Your task to perform on an android device: toggle wifi Image 0: 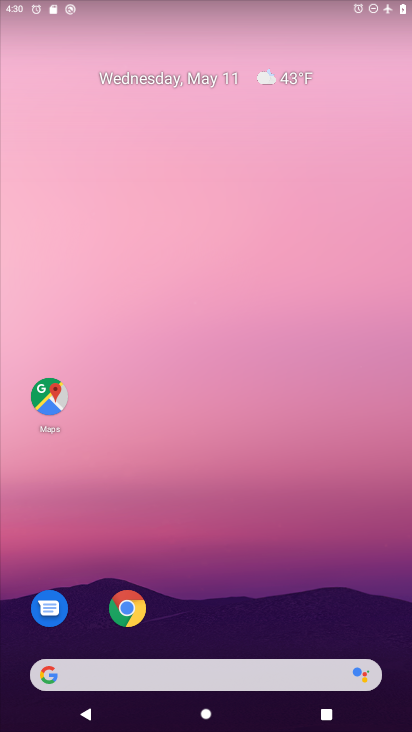
Step 0: drag from (221, 723) to (227, 153)
Your task to perform on an android device: toggle wifi Image 1: 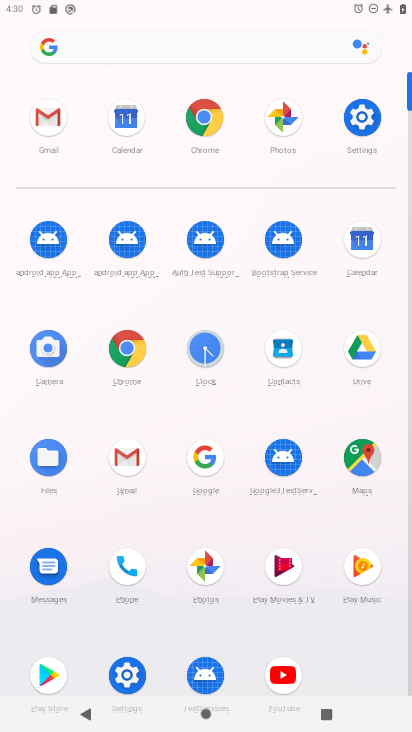
Step 1: click (359, 118)
Your task to perform on an android device: toggle wifi Image 2: 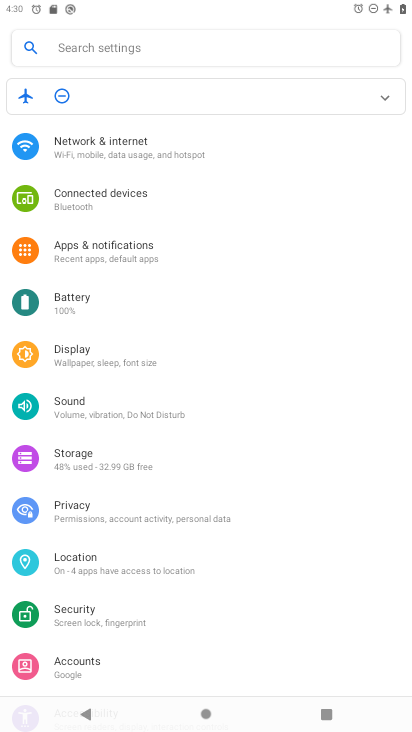
Step 2: click (94, 148)
Your task to perform on an android device: toggle wifi Image 3: 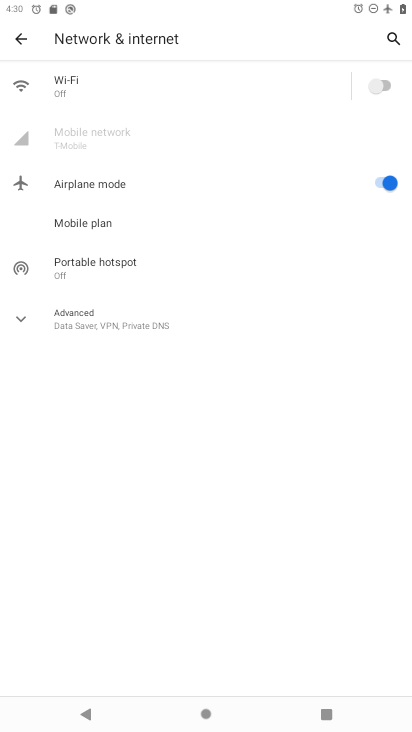
Step 3: click (386, 81)
Your task to perform on an android device: toggle wifi Image 4: 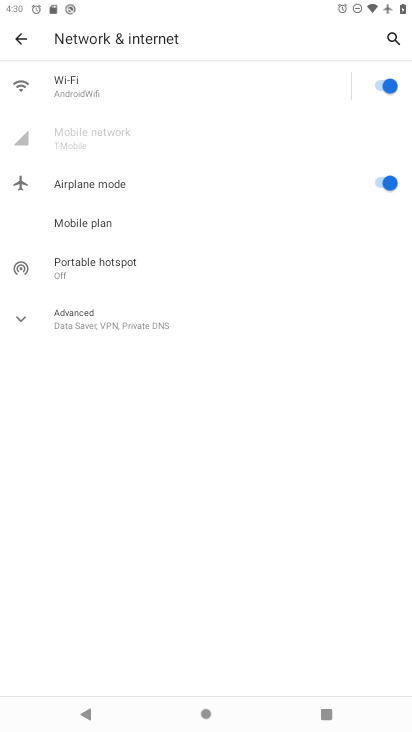
Step 4: task complete